Your task to perform on an android device: turn off sleep mode Image 0: 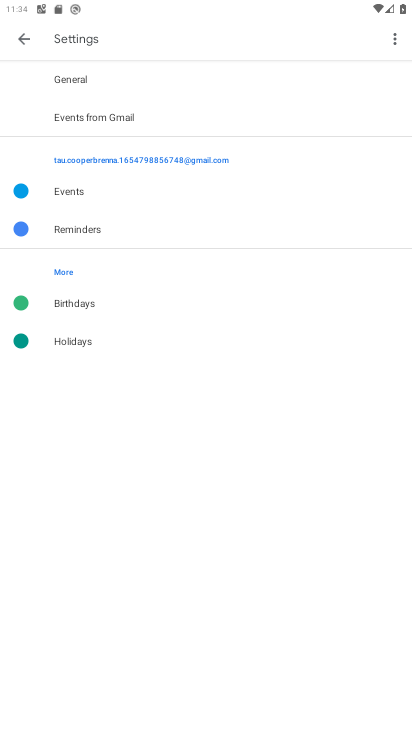
Step 0: press home button
Your task to perform on an android device: turn off sleep mode Image 1: 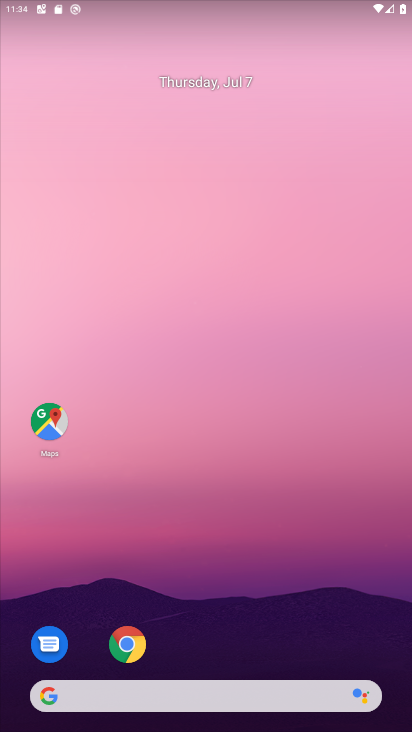
Step 1: drag from (30, 686) to (152, 129)
Your task to perform on an android device: turn off sleep mode Image 2: 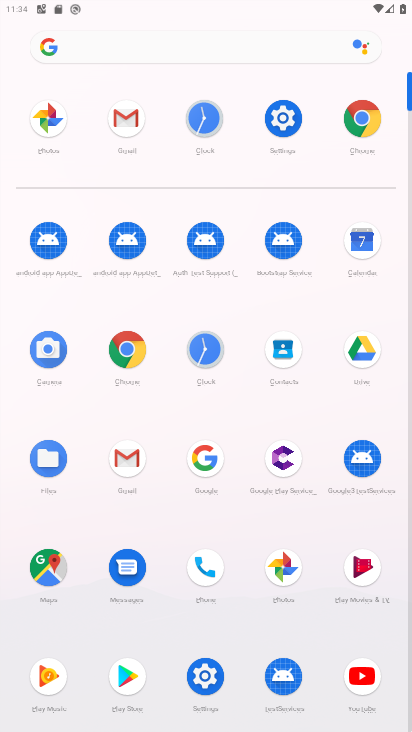
Step 2: click (200, 678)
Your task to perform on an android device: turn off sleep mode Image 3: 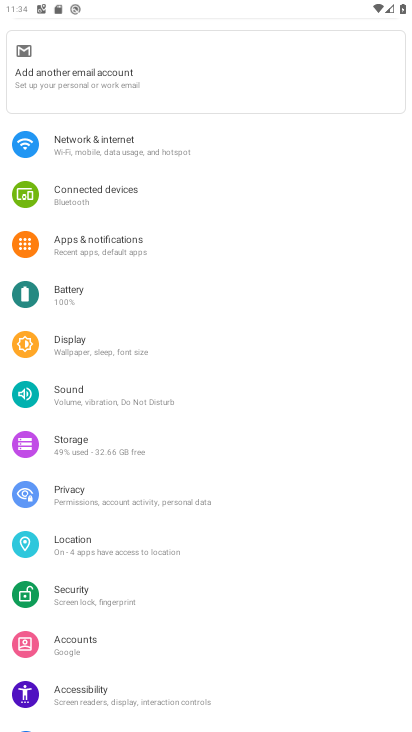
Step 3: click (89, 353)
Your task to perform on an android device: turn off sleep mode Image 4: 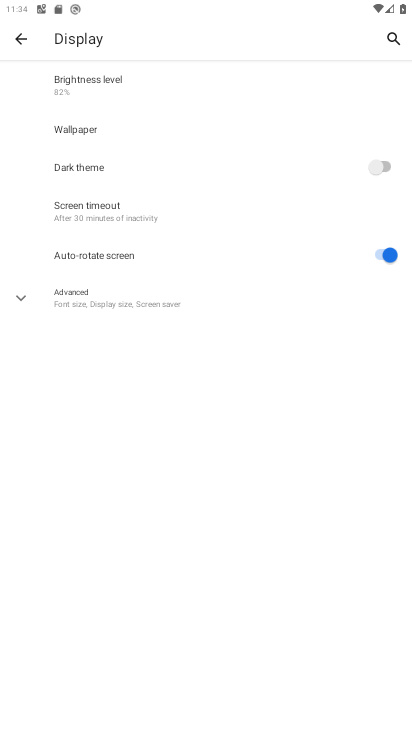
Step 4: click (80, 308)
Your task to perform on an android device: turn off sleep mode Image 5: 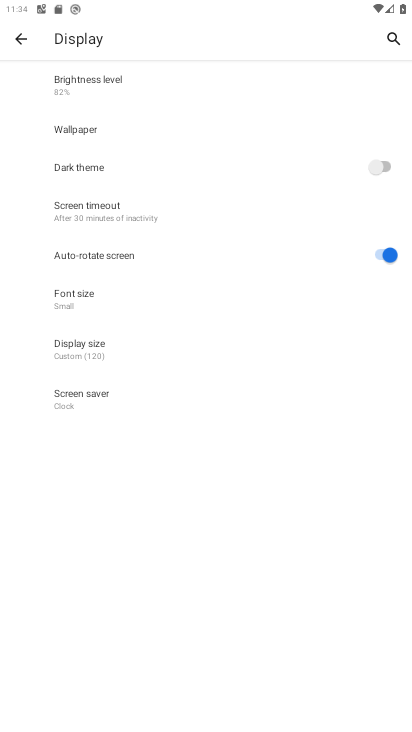
Step 5: click (16, 39)
Your task to perform on an android device: turn off sleep mode Image 6: 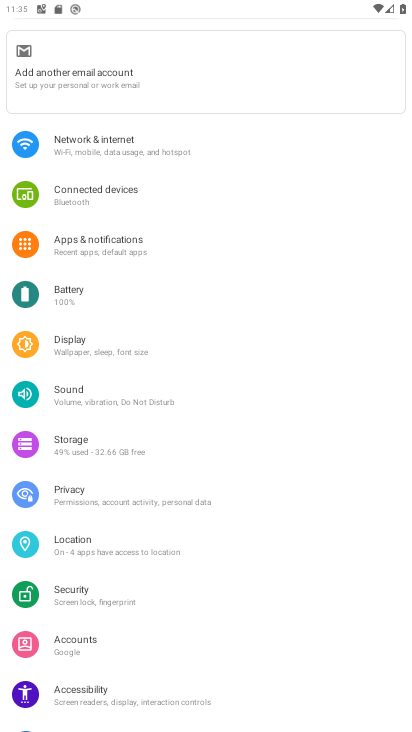
Step 6: click (93, 687)
Your task to perform on an android device: turn off sleep mode Image 7: 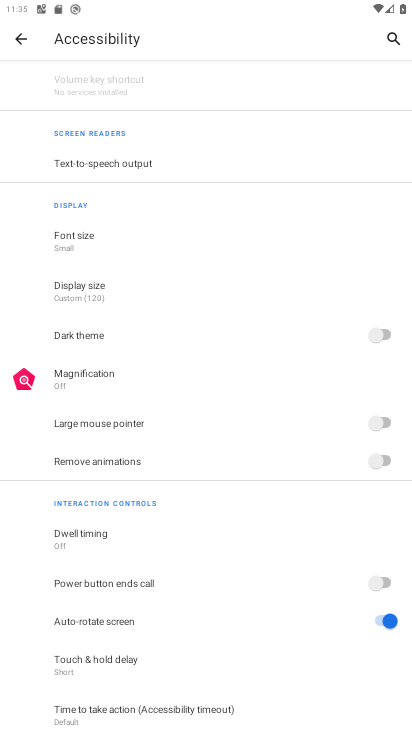
Step 7: task complete